Your task to perform on an android device: uninstall "Speedtest by Ookla" Image 0: 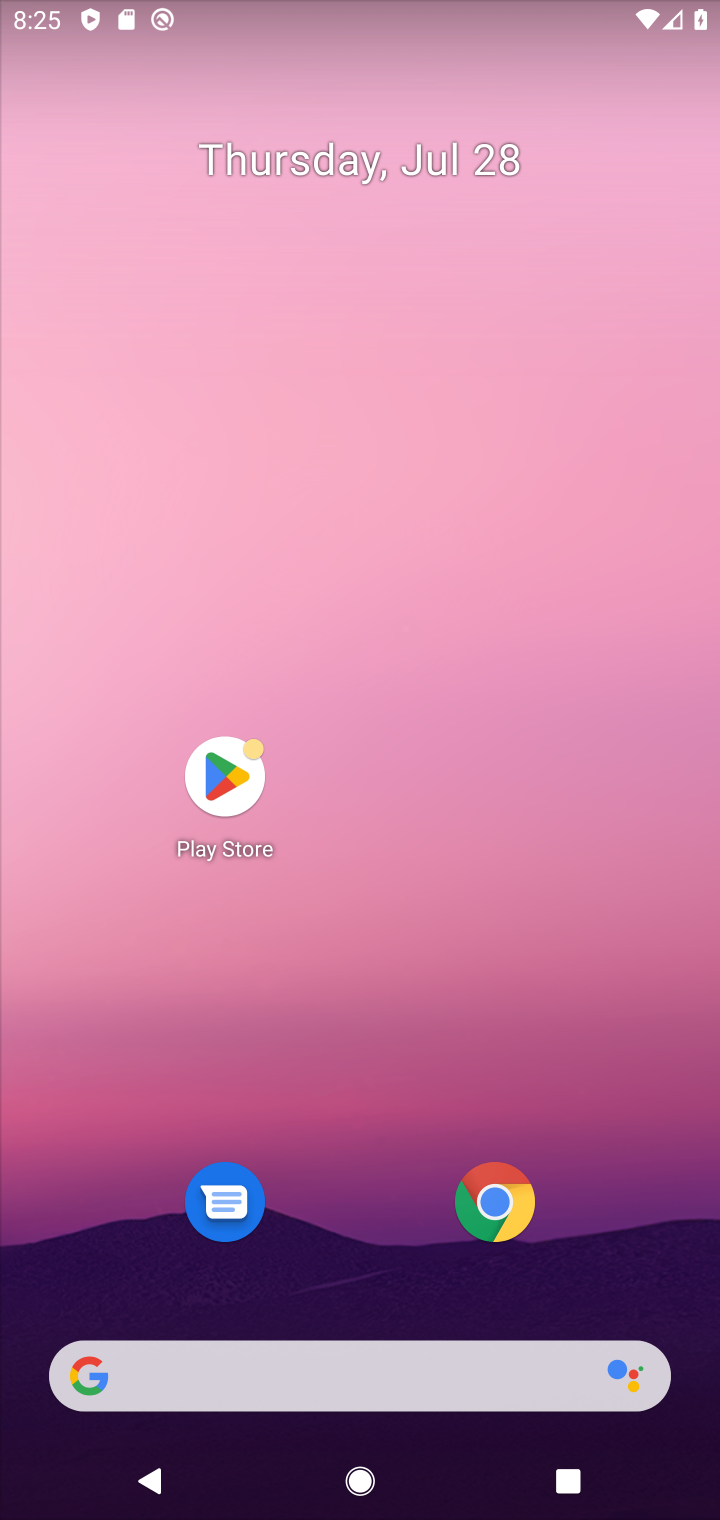
Step 0: click (227, 769)
Your task to perform on an android device: uninstall "Speedtest by Ookla" Image 1: 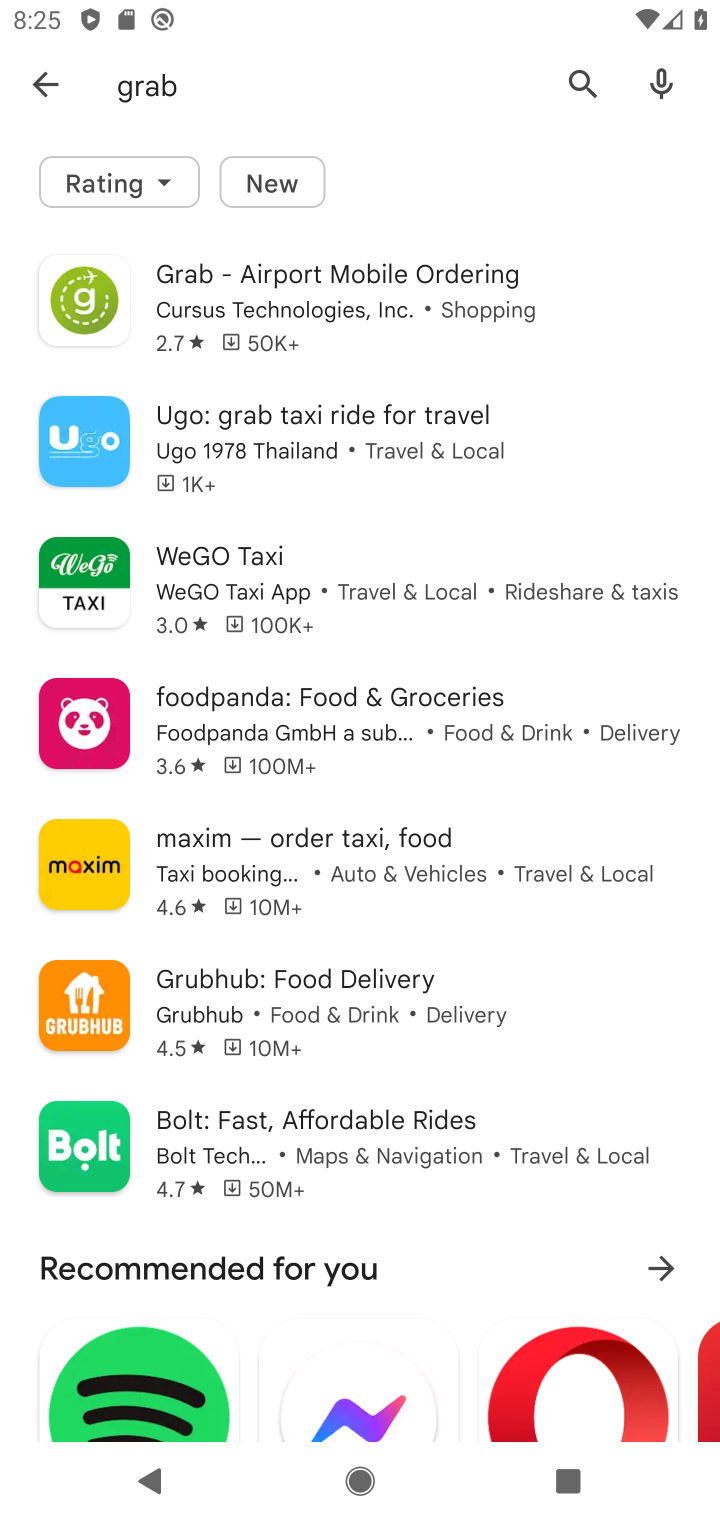
Step 1: click (575, 80)
Your task to perform on an android device: uninstall "Speedtest by Ookla" Image 2: 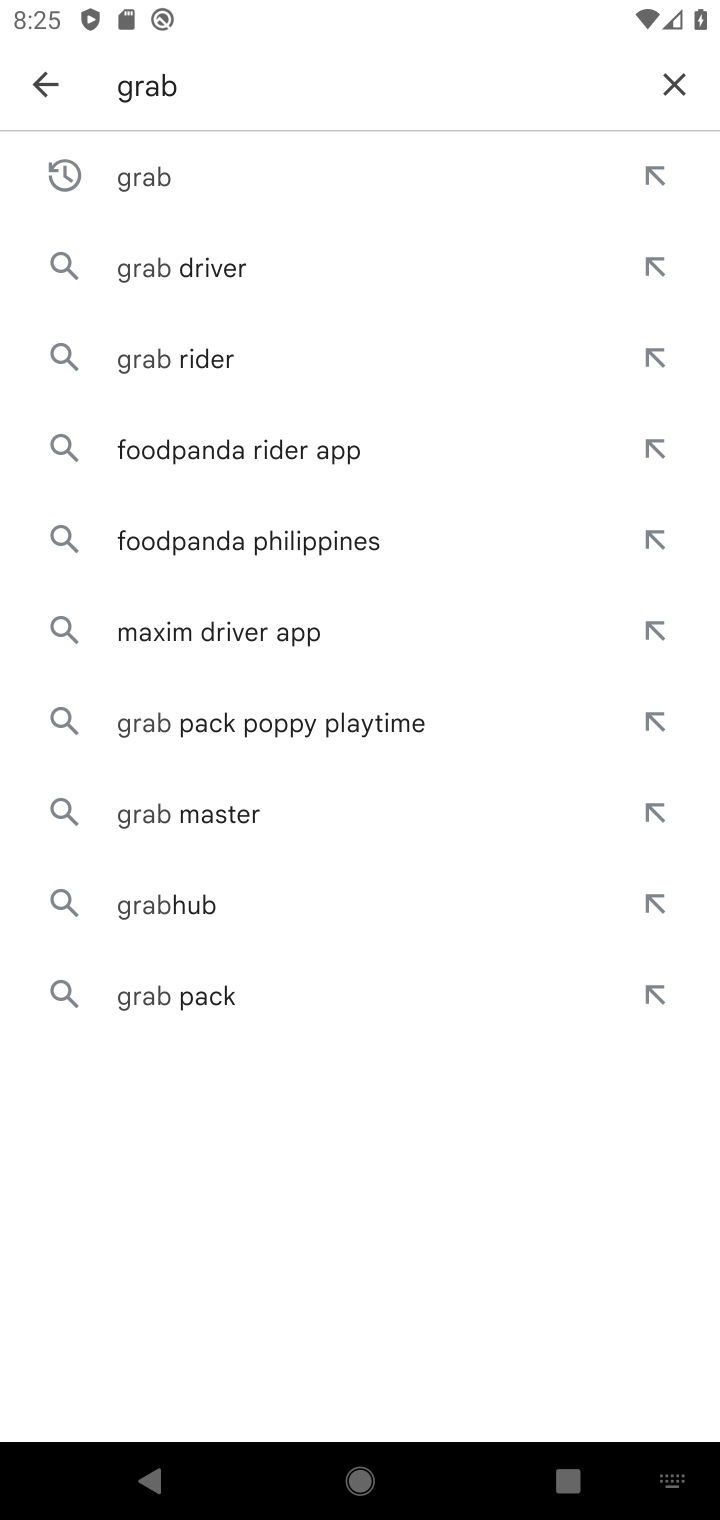
Step 2: click (684, 70)
Your task to perform on an android device: uninstall "Speedtest by Ookla" Image 3: 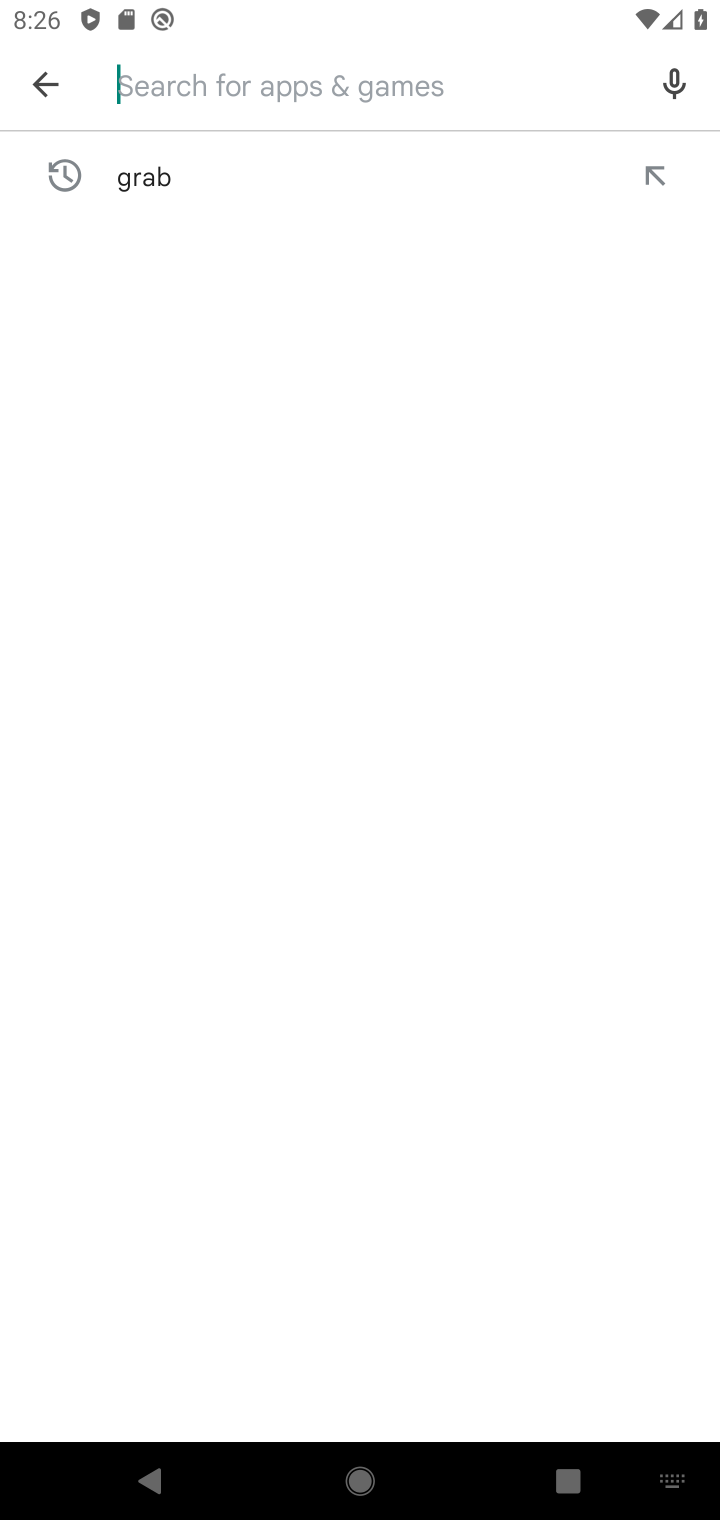
Step 3: type "speedtest by ookla"
Your task to perform on an android device: uninstall "Speedtest by Ookla" Image 4: 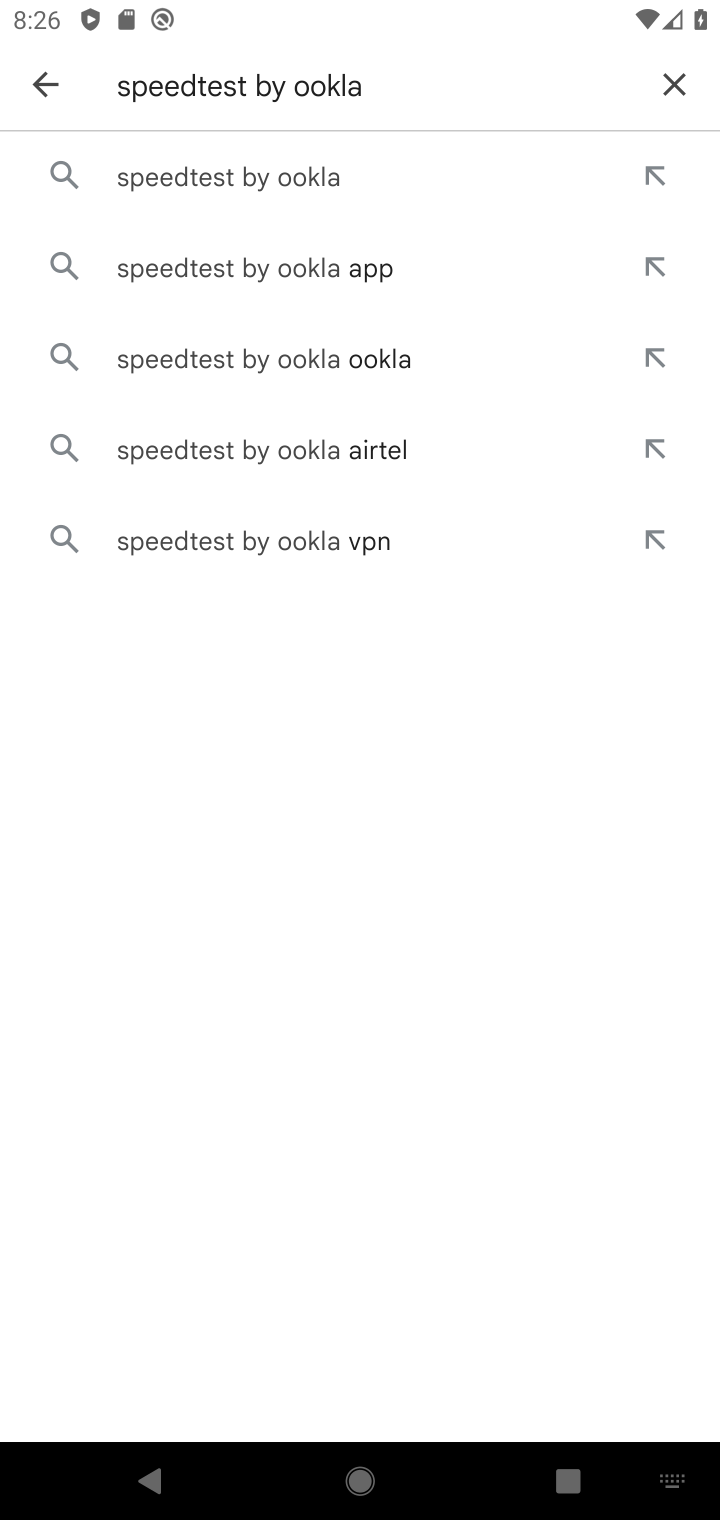
Step 4: click (247, 178)
Your task to perform on an android device: uninstall "Speedtest by Ookla" Image 5: 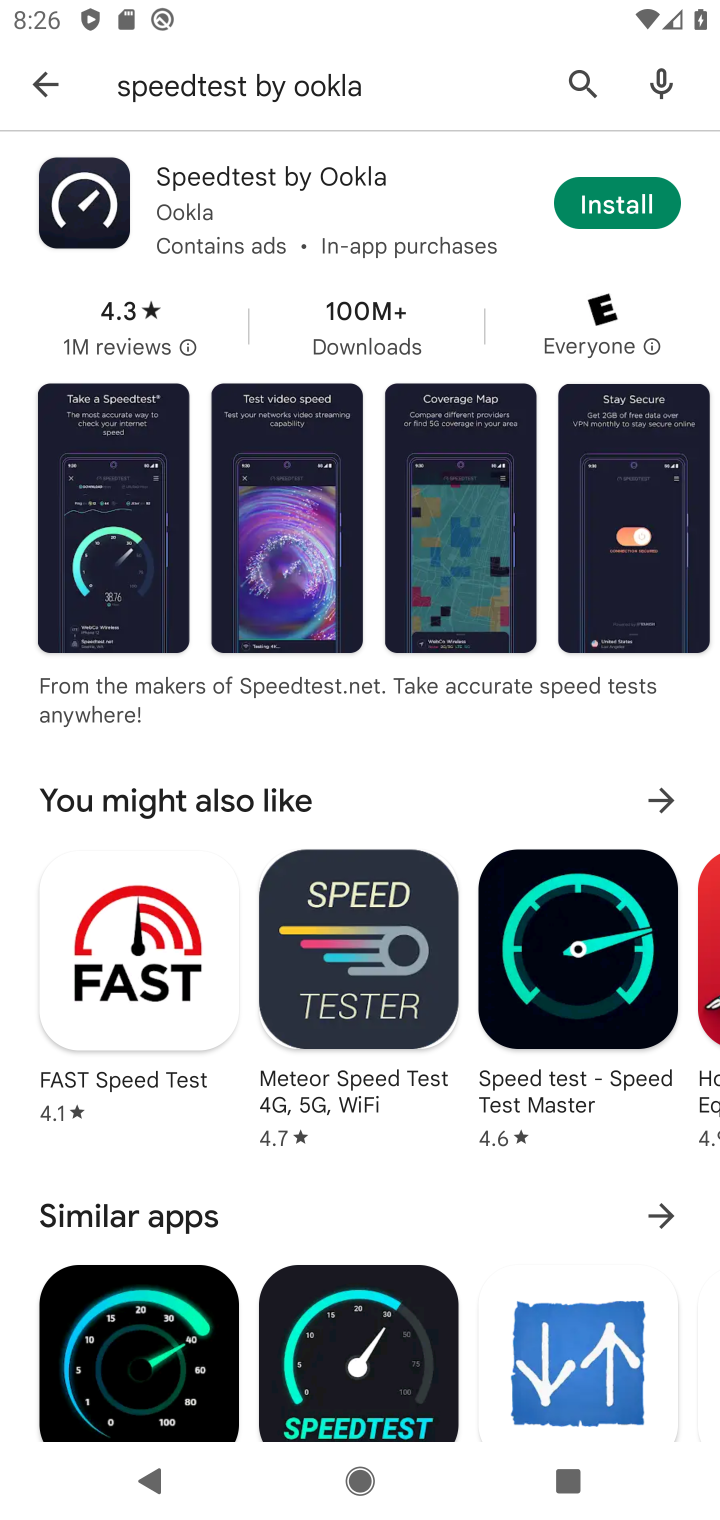
Step 5: task complete